Your task to perform on an android device: check google app version Image 0: 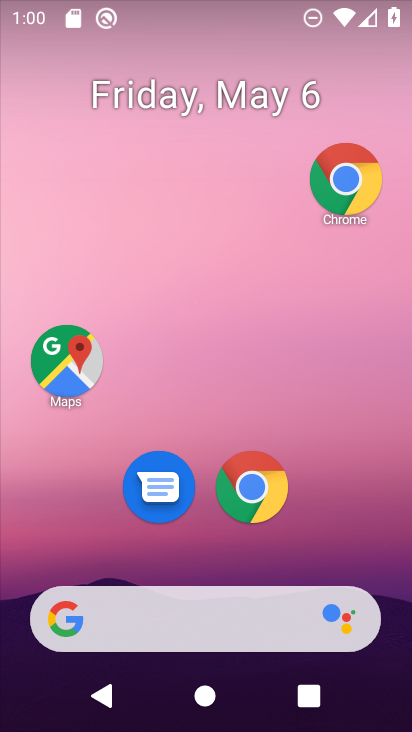
Step 0: drag from (341, 552) to (285, 354)
Your task to perform on an android device: check google app version Image 1: 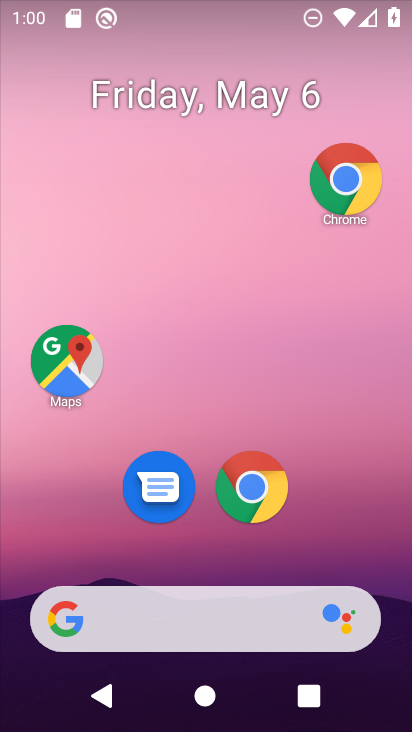
Step 1: click (259, 515)
Your task to perform on an android device: check google app version Image 2: 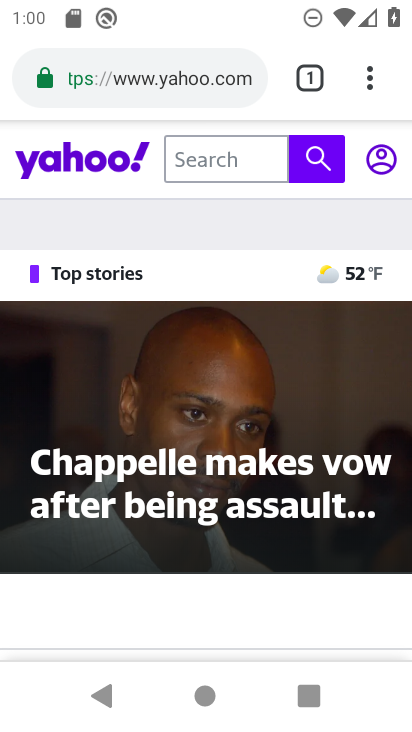
Step 2: click (370, 68)
Your task to perform on an android device: check google app version Image 3: 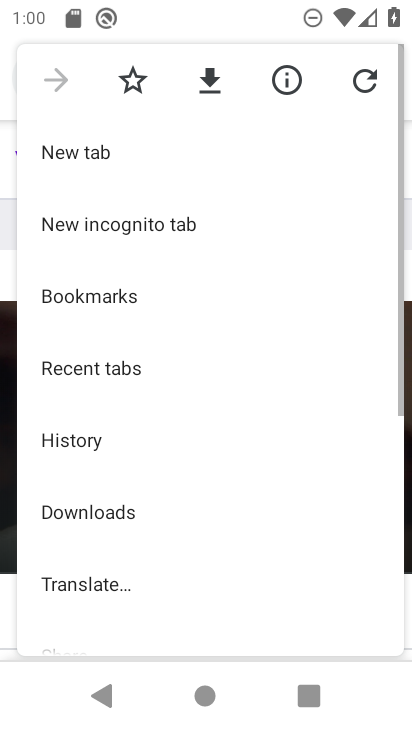
Step 3: drag from (299, 551) to (299, 365)
Your task to perform on an android device: check google app version Image 4: 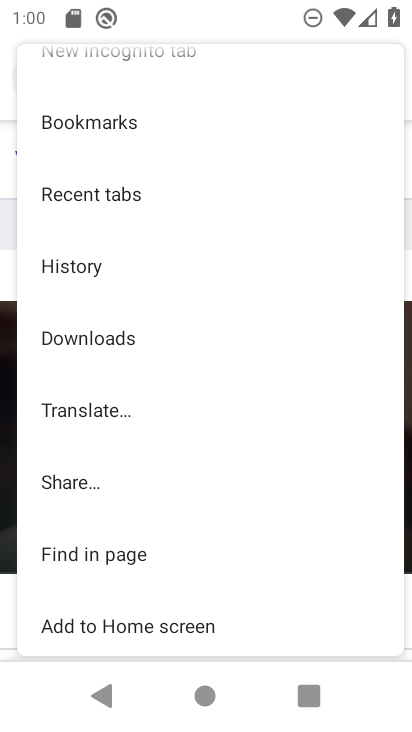
Step 4: drag from (232, 541) to (226, 156)
Your task to perform on an android device: check google app version Image 5: 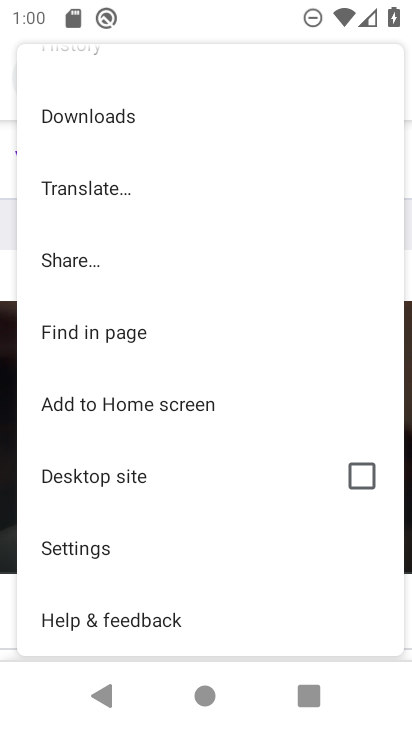
Step 5: click (184, 597)
Your task to perform on an android device: check google app version Image 6: 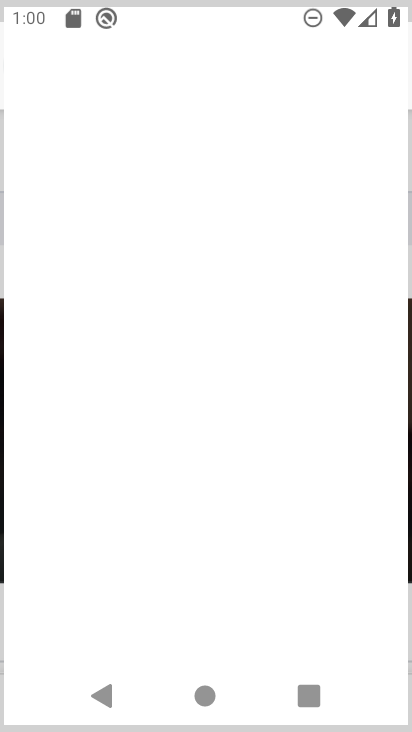
Step 6: drag from (184, 601) to (177, 349)
Your task to perform on an android device: check google app version Image 7: 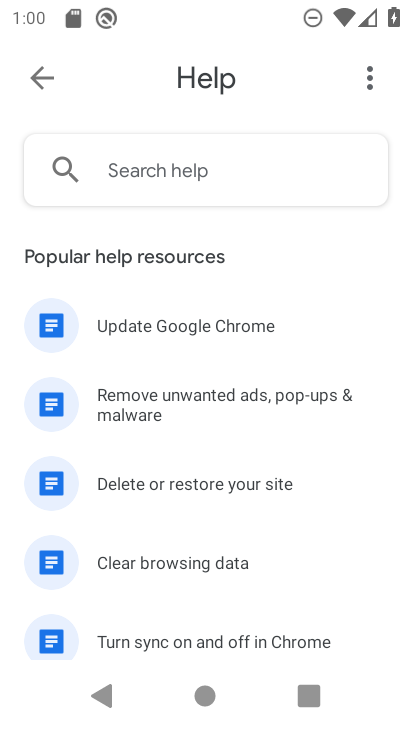
Step 7: press home button
Your task to perform on an android device: check google app version Image 8: 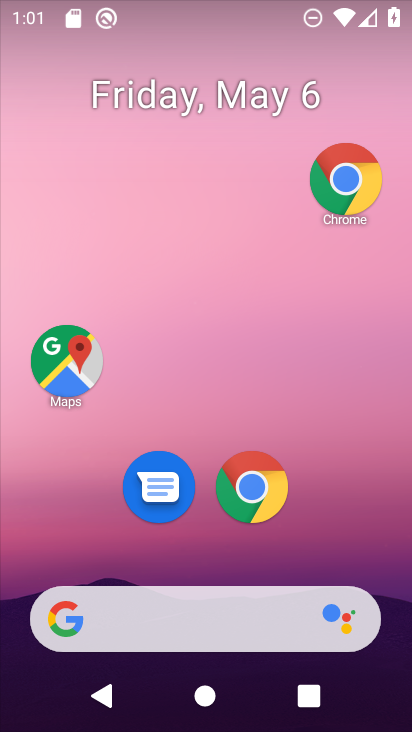
Step 8: click (275, 509)
Your task to perform on an android device: check google app version Image 9: 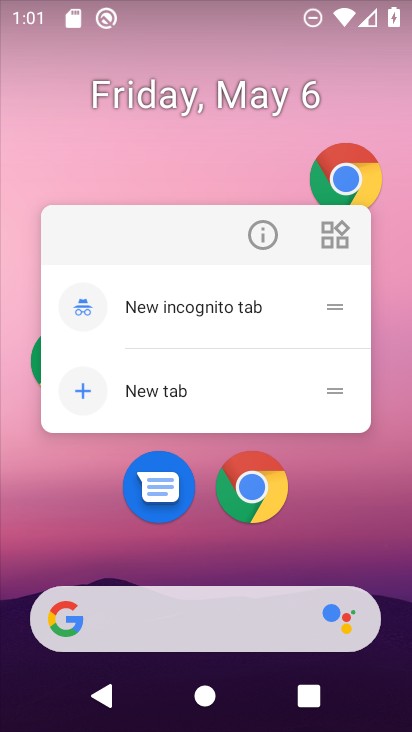
Step 9: click (247, 218)
Your task to perform on an android device: check google app version Image 10: 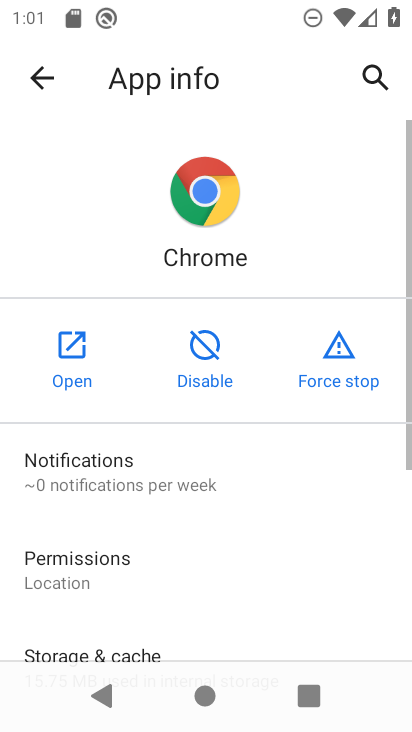
Step 10: task complete